Your task to perform on an android device: open device folders in google photos Image 0: 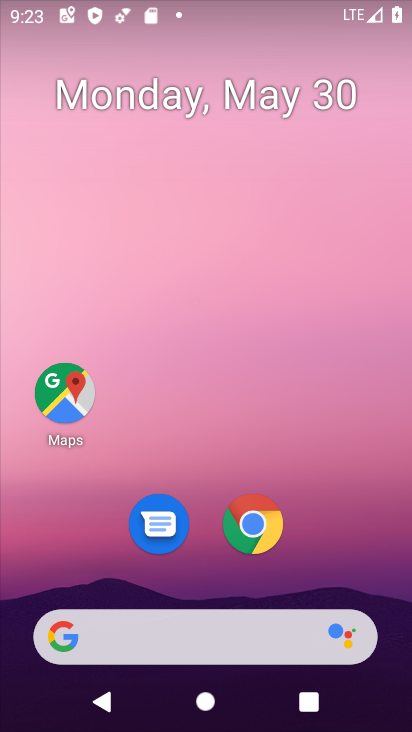
Step 0: drag from (319, 560) to (305, 14)
Your task to perform on an android device: open device folders in google photos Image 1: 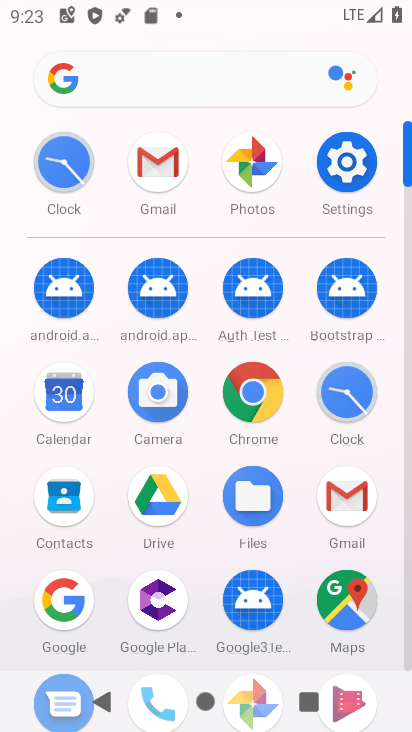
Step 1: drag from (296, 439) to (285, 138)
Your task to perform on an android device: open device folders in google photos Image 2: 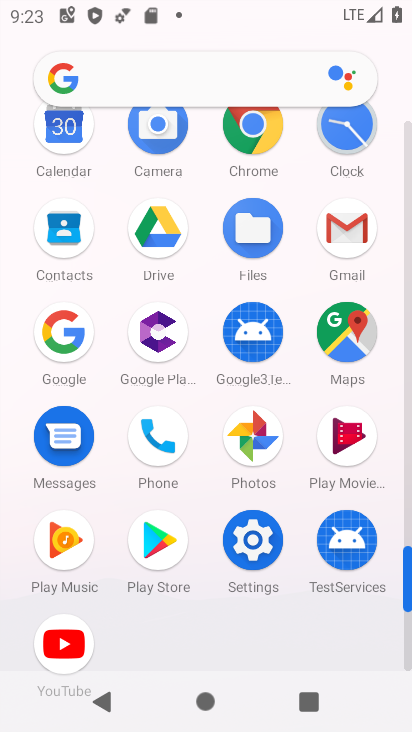
Step 2: click (266, 440)
Your task to perform on an android device: open device folders in google photos Image 3: 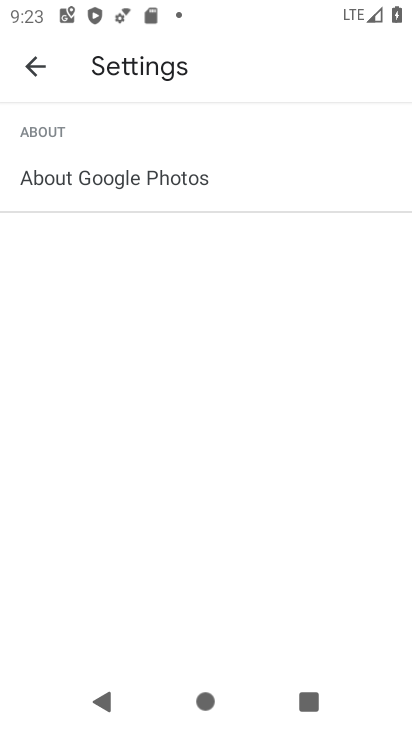
Step 3: click (31, 56)
Your task to perform on an android device: open device folders in google photos Image 4: 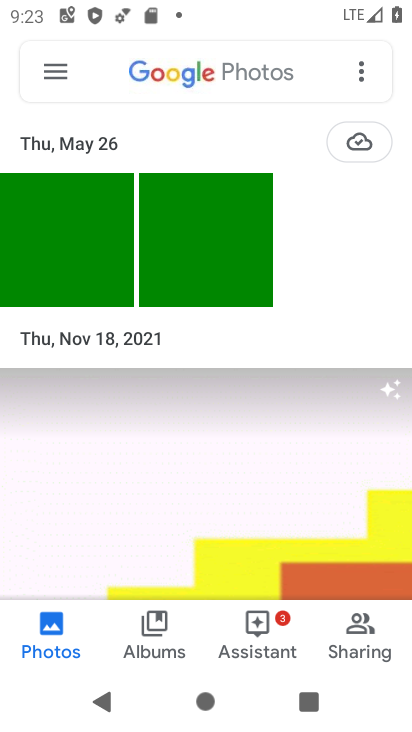
Step 4: click (52, 70)
Your task to perform on an android device: open device folders in google photos Image 5: 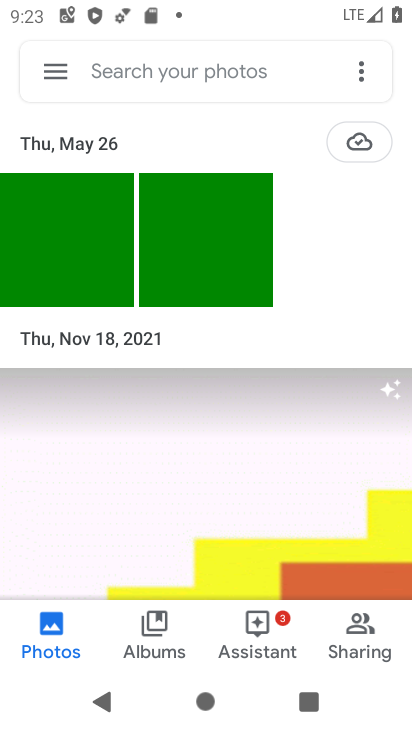
Step 5: click (52, 70)
Your task to perform on an android device: open device folders in google photos Image 6: 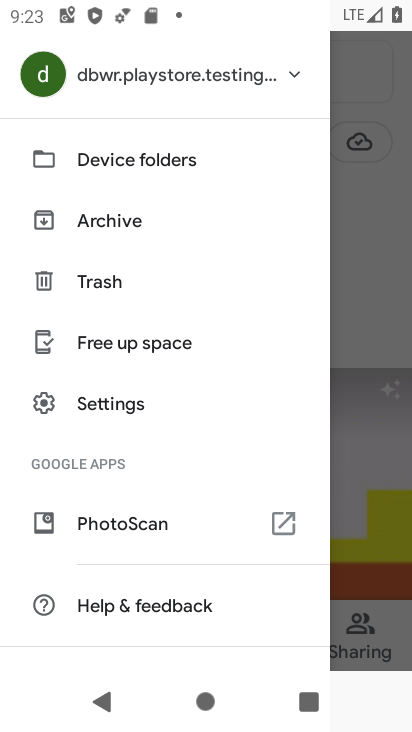
Step 6: click (128, 163)
Your task to perform on an android device: open device folders in google photos Image 7: 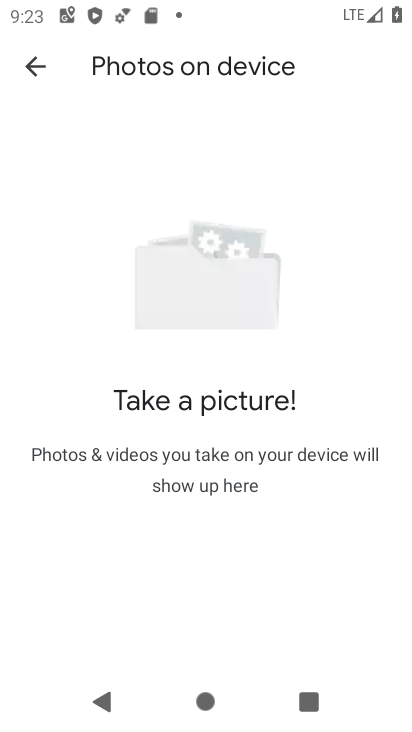
Step 7: task complete